Your task to perform on an android device: Search for seafood restaurants on Google Maps Image 0: 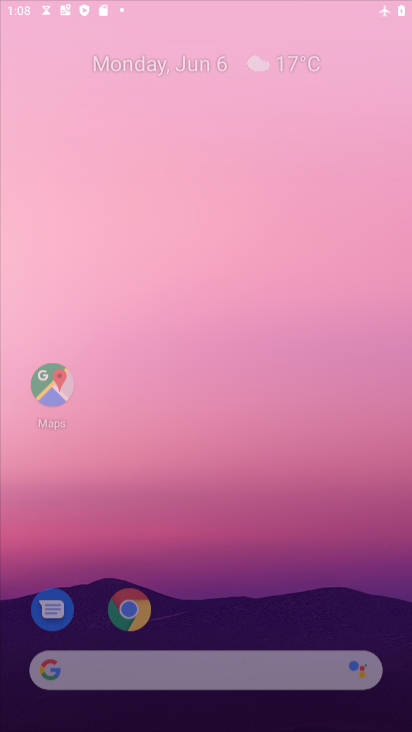
Step 0: click (59, 25)
Your task to perform on an android device: Search for seafood restaurants on Google Maps Image 1: 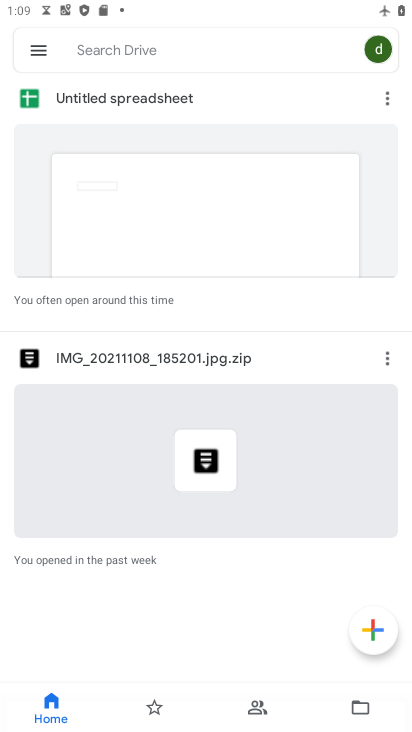
Step 1: press back button
Your task to perform on an android device: Search for seafood restaurants on Google Maps Image 2: 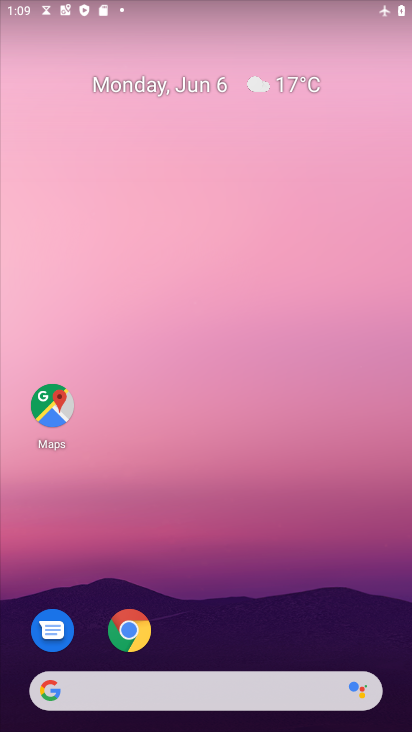
Step 2: drag from (225, 680) to (203, 251)
Your task to perform on an android device: Search for seafood restaurants on Google Maps Image 3: 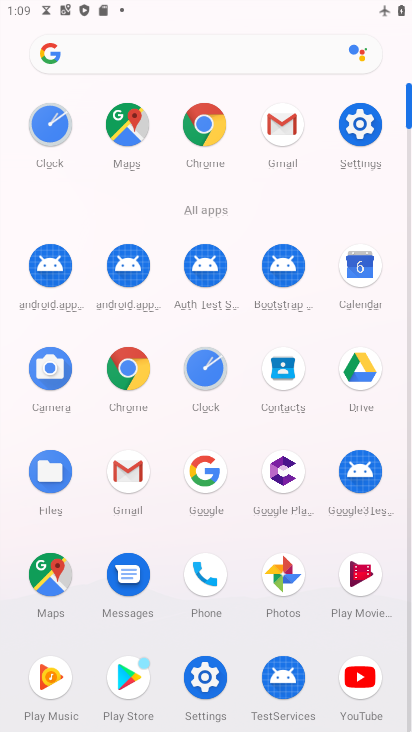
Step 3: click (35, 571)
Your task to perform on an android device: Search for seafood restaurants on Google Maps Image 4: 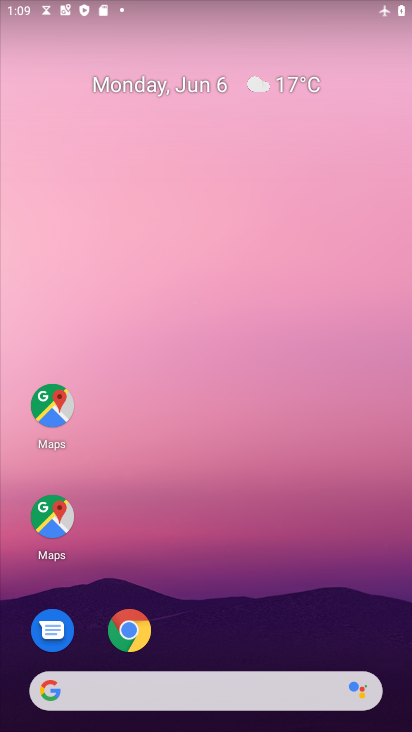
Step 4: click (44, 504)
Your task to perform on an android device: Search for seafood restaurants on Google Maps Image 5: 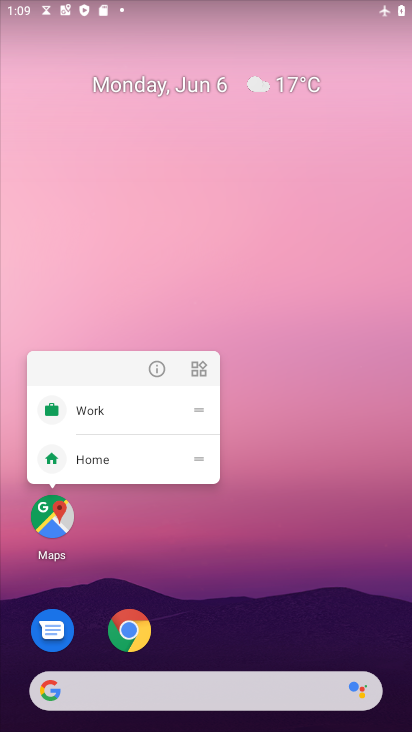
Step 5: drag from (204, 629) to (200, 131)
Your task to perform on an android device: Search for seafood restaurants on Google Maps Image 6: 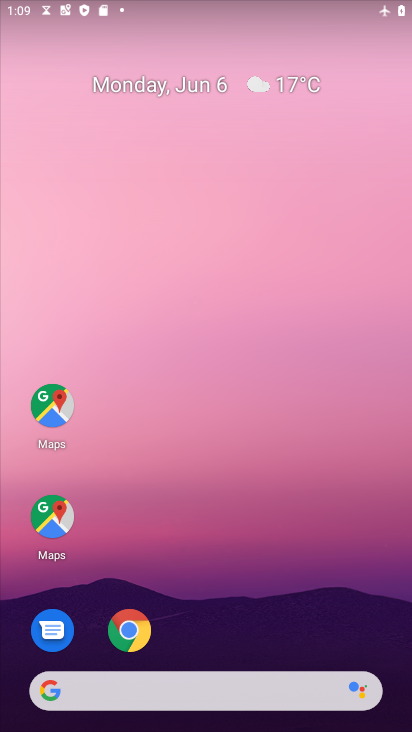
Step 6: drag from (243, 592) to (159, 296)
Your task to perform on an android device: Search for seafood restaurants on Google Maps Image 7: 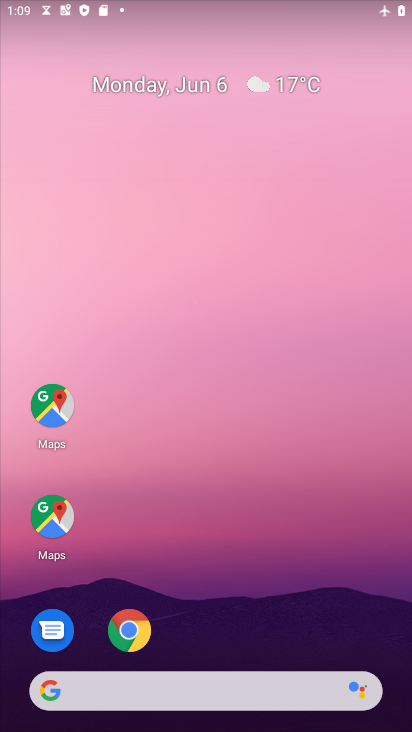
Step 7: drag from (159, 591) to (137, 212)
Your task to perform on an android device: Search for seafood restaurants on Google Maps Image 8: 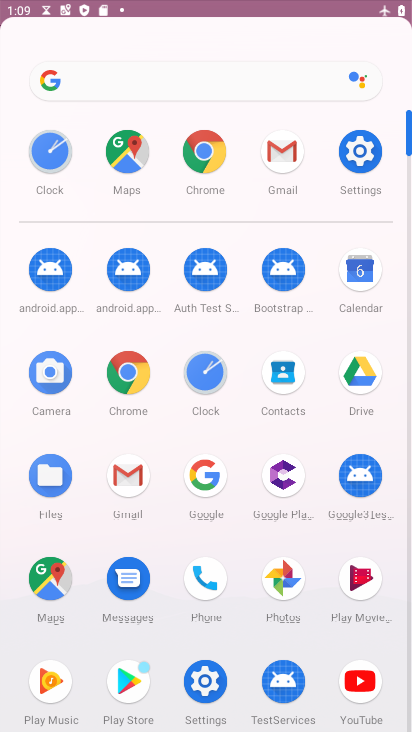
Step 8: drag from (201, 635) to (157, 220)
Your task to perform on an android device: Search for seafood restaurants on Google Maps Image 9: 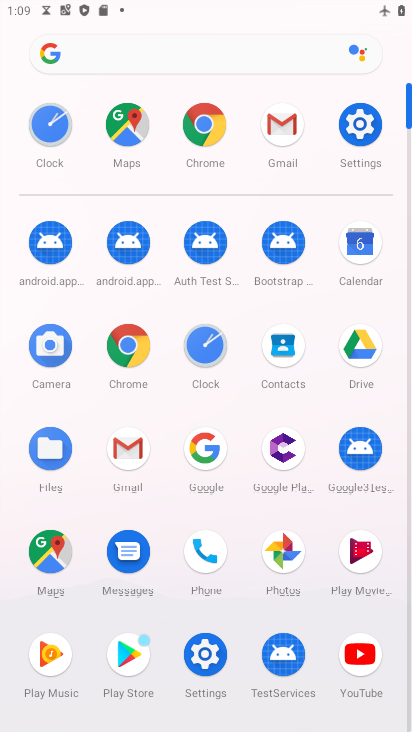
Step 9: click (50, 550)
Your task to perform on an android device: Search for seafood restaurants on Google Maps Image 10: 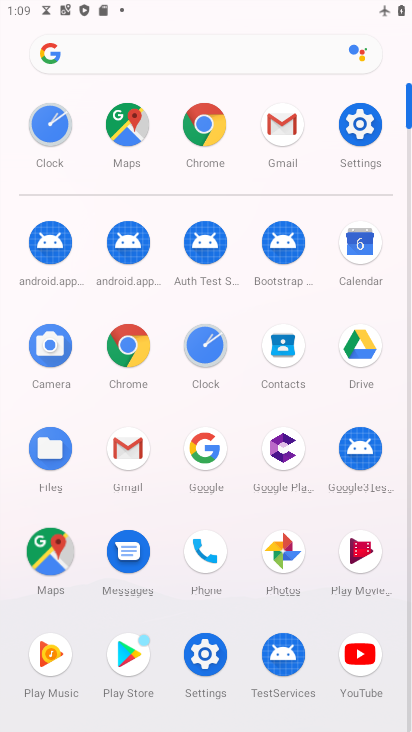
Step 10: drag from (29, 551) to (79, 554)
Your task to perform on an android device: Search for seafood restaurants on Google Maps Image 11: 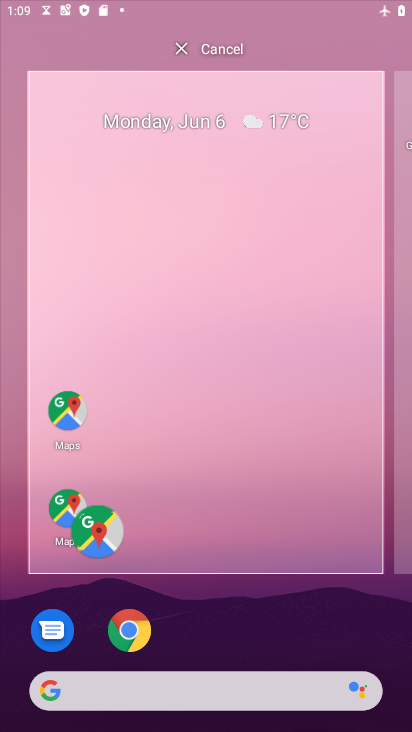
Step 11: click (79, 540)
Your task to perform on an android device: Search for seafood restaurants on Google Maps Image 12: 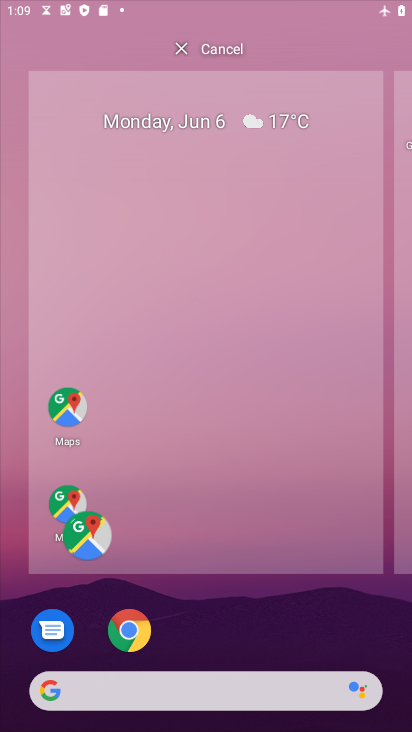
Step 12: click (77, 542)
Your task to perform on an android device: Search for seafood restaurants on Google Maps Image 13: 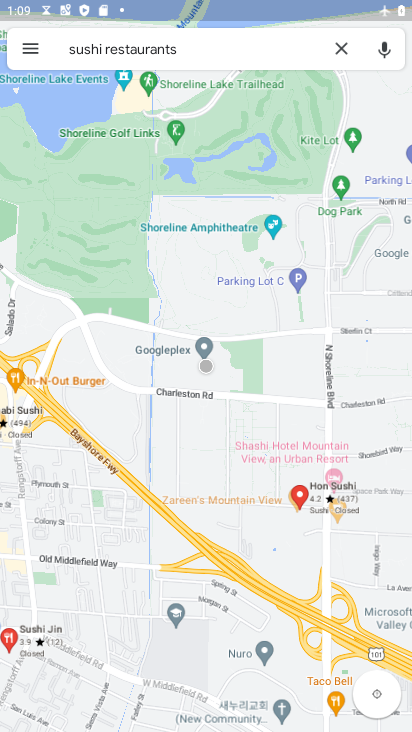
Step 13: click (73, 52)
Your task to perform on an android device: Search for seafood restaurants on Google Maps Image 14: 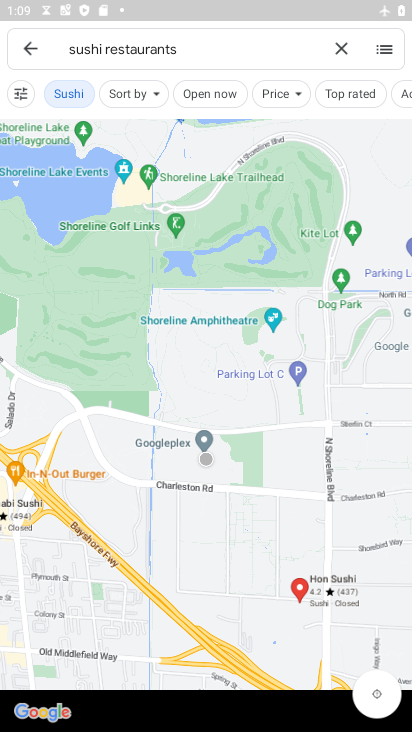
Step 14: click (341, 44)
Your task to perform on an android device: Search for seafood restaurants on Google Maps Image 15: 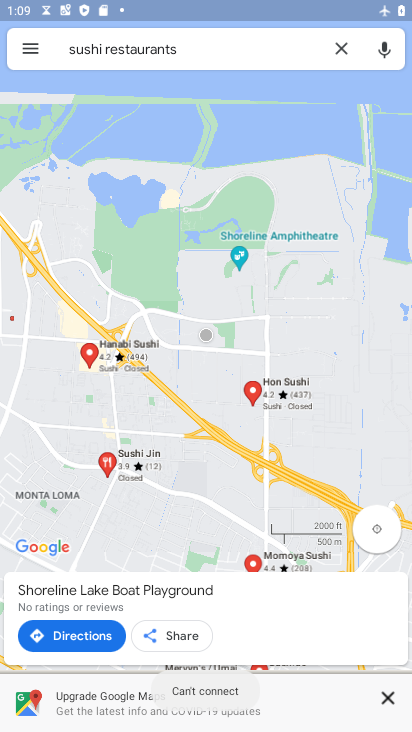
Step 15: click (333, 50)
Your task to perform on an android device: Search for seafood restaurants on Google Maps Image 16: 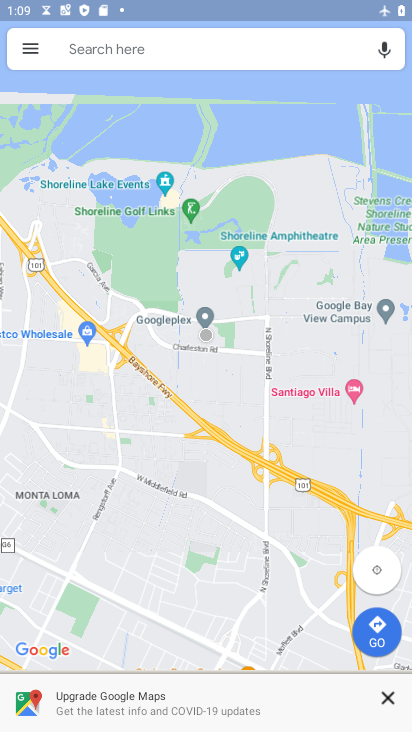
Step 16: click (342, 44)
Your task to perform on an android device: Search for seafood restaurants on Google Maps Image 17: 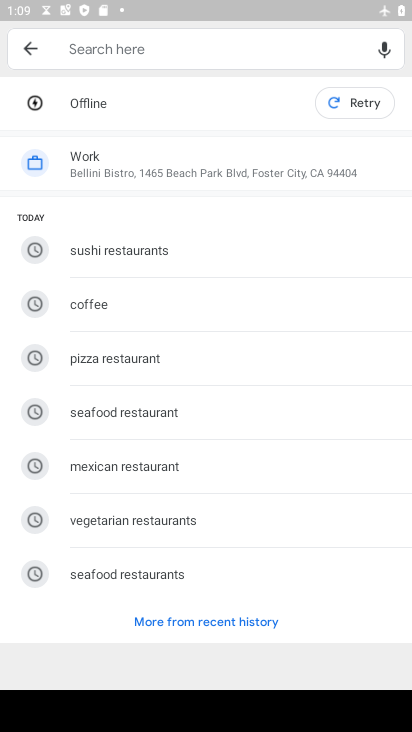
Step 17: click (118, 419)
Your task to perform on an android device: Search for seafood restaurants on Google Maps Image 18: 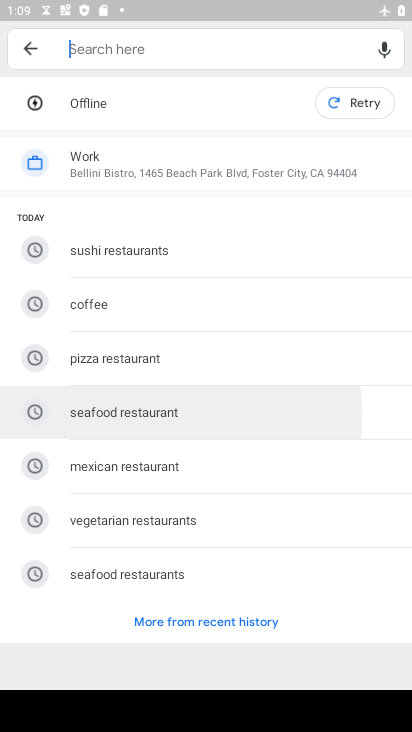
Step 18: click (118, 418)
Your task to perform on an android device: Search for seafood restaurants on Google Maps Image 19: 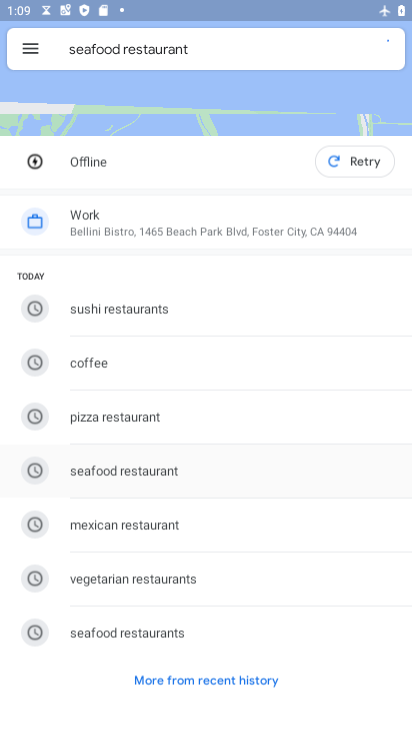
Step 19: click (119, 409)
Your task to perform on an android device: Search for seafood restaurants on Google Maps Image 20: 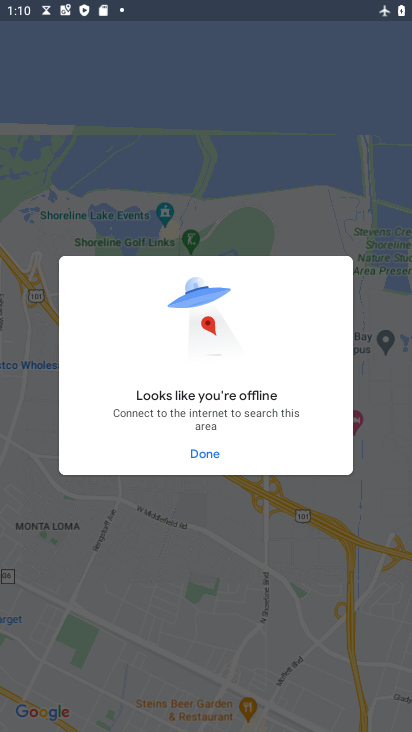
Step 20: task complete